Your task to perform on an android device: toggle sleep mode Image 0: 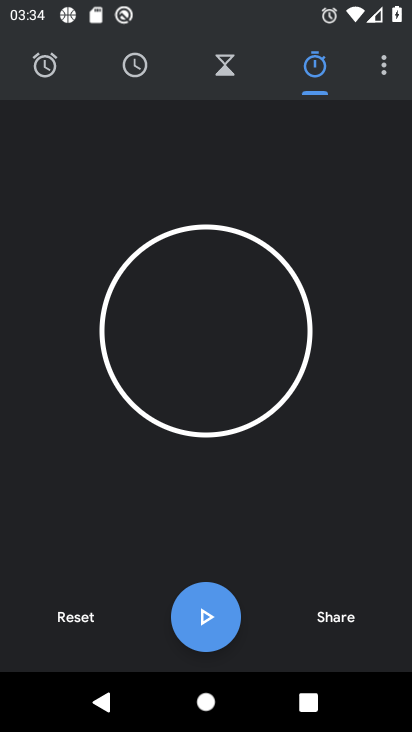
Step 0: press back button
Your task to perform on an android device: toggle sleep mode Image 1: 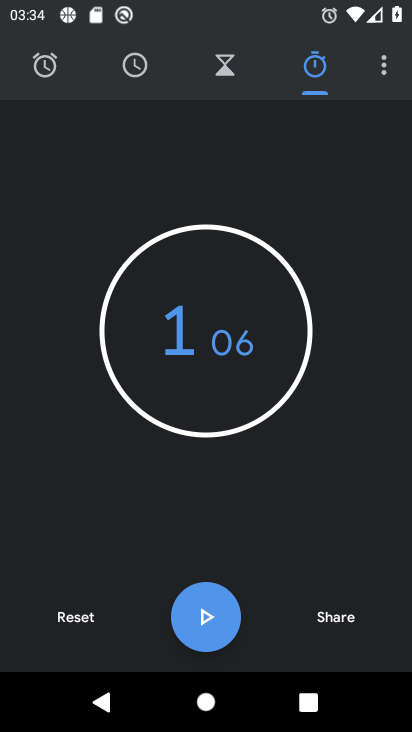
Step 1: press back button
Your task to perform on an android device: toggle sleep mode Image 2: 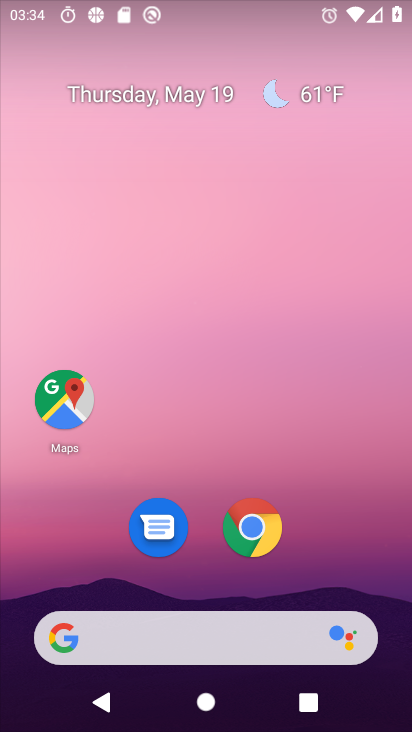
Step 2: drag from (175, 574) to (277, 5)
Your task to perform on an android device: toggle sleep mode Image 3: 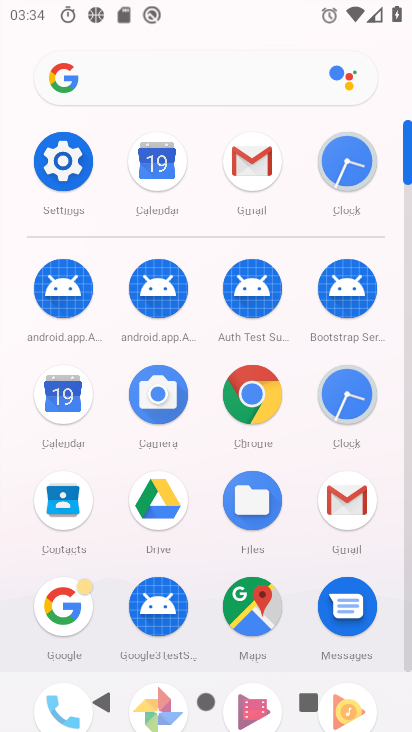
Step 3: click (67, 155)
Your task to perform on an android device: toggle sleep mode Image 4: 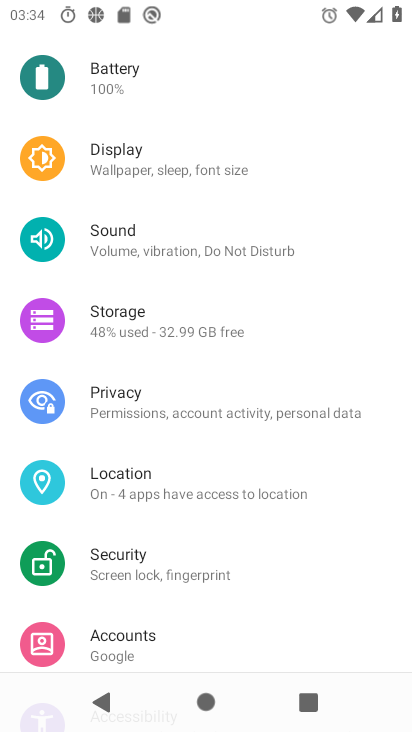
Step 4: drag from (153, 131) to (154, 674)
Your task to perform on an android device: toggle sleep mode Image 5: 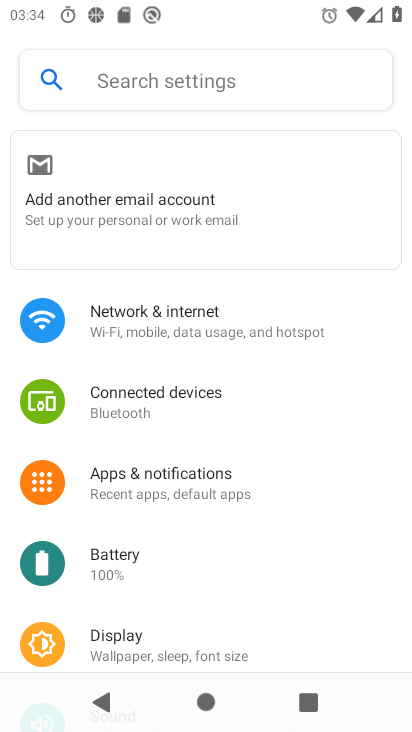
Step 5: click (157, 77)
Your task to perform on an android device: toggle sleep mode Image 6: 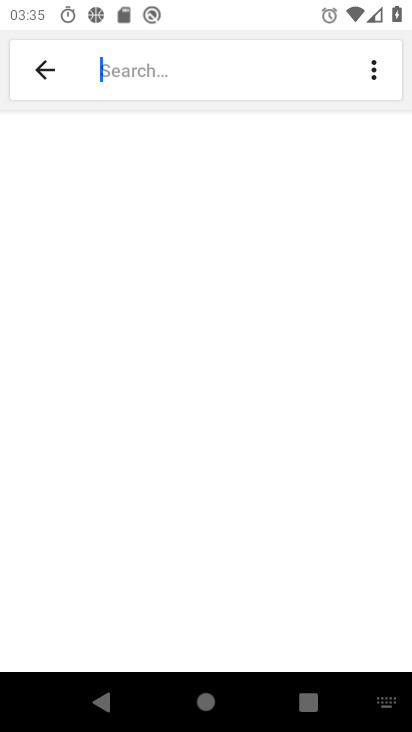
Step 6: type "sleep mode"
Your task to perform on an android device: toggle sleep mode Image 7: 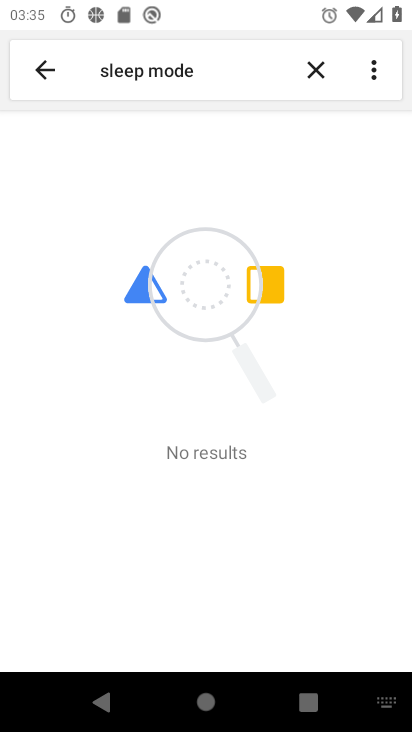
Step 7: task complete